Your task to perform on an android device: check storage Image 0: 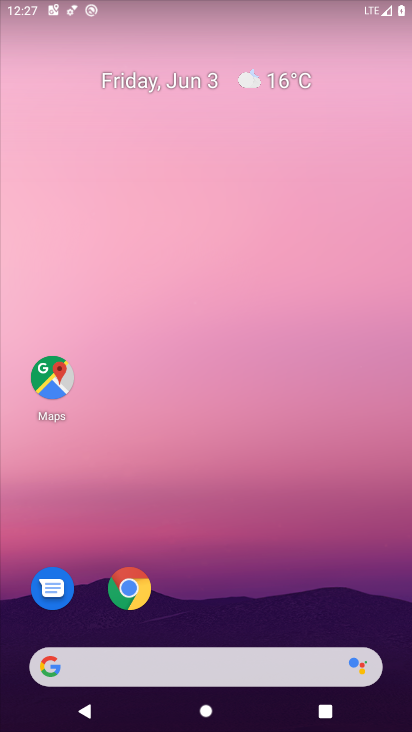
Step 0: drag from (221, 609) to (234, 20)
Your task to perform on an android device: check storage Image 1: 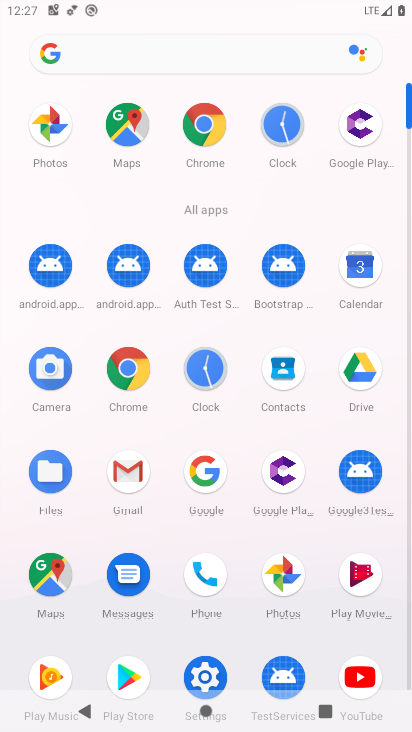
Step 1: click (206, 664)
Your task to perform on an android device: check storage Image 2: 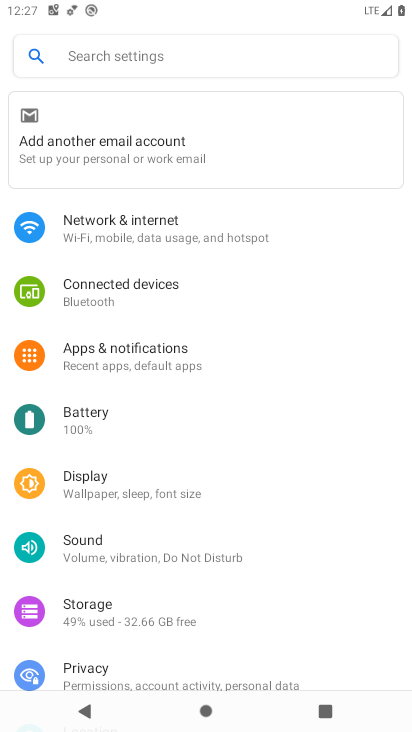
Step 2: click (175, 615)
Your task to perform on an android device: check storage Image 3: 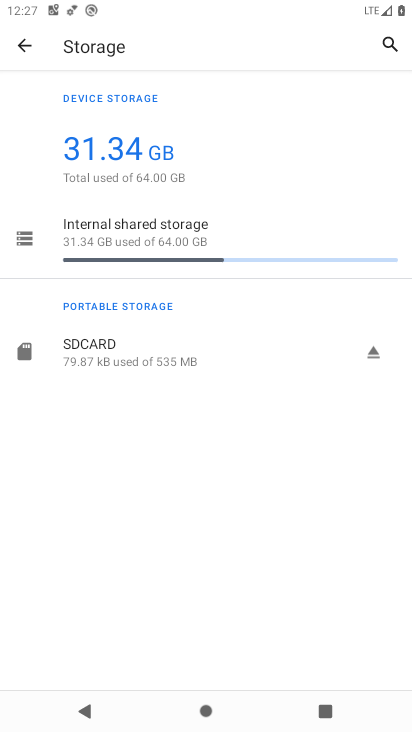
Step 3: click (243, 496)
Your task to perform on an android device: check storage Image 4: 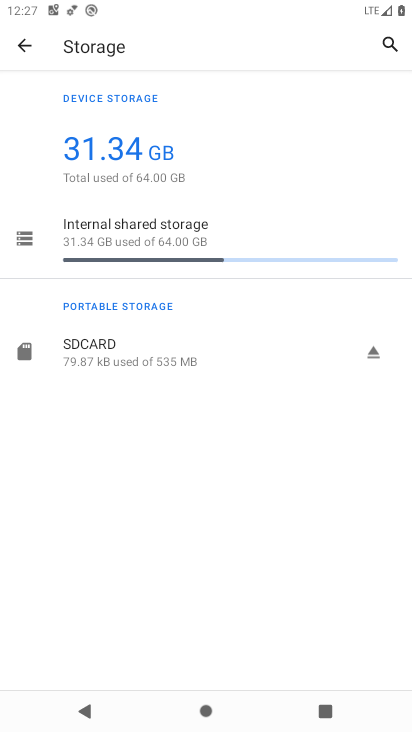
Step 4: click (128, 165)
Your task to perform on an android device: check storage Image 5: 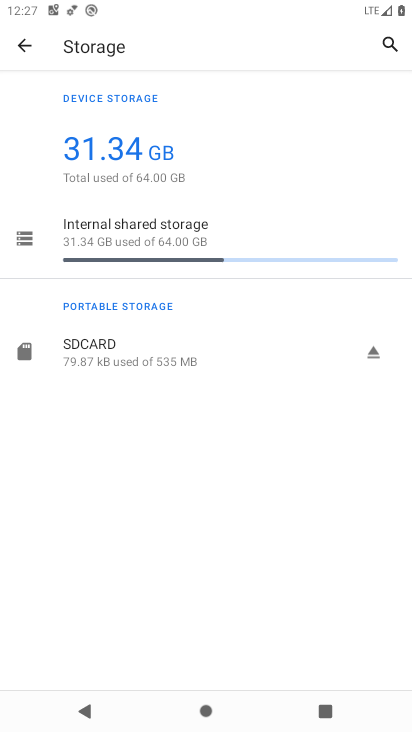
Step 5: task complete